Your task to perform on an android device: open the mobile data screen to see how much data has been used Image 0: 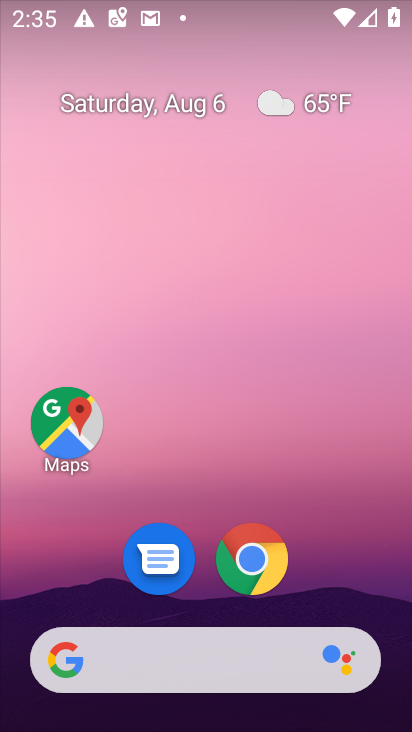
Step 0: drag from (195, 421) to (185, 43)
Your task to perform on an android device: open the mobile data screen to see how much data has been used Image 1: 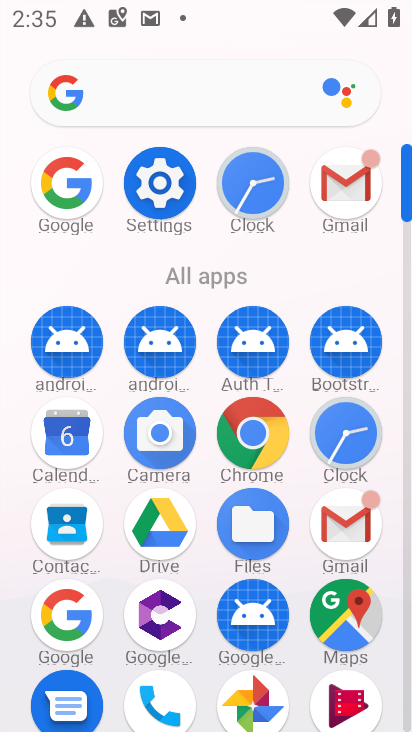
Step 1: click (168, 178)
Your task to perform on an android device: open the mobile data screen to see how much data has been used Image 2: 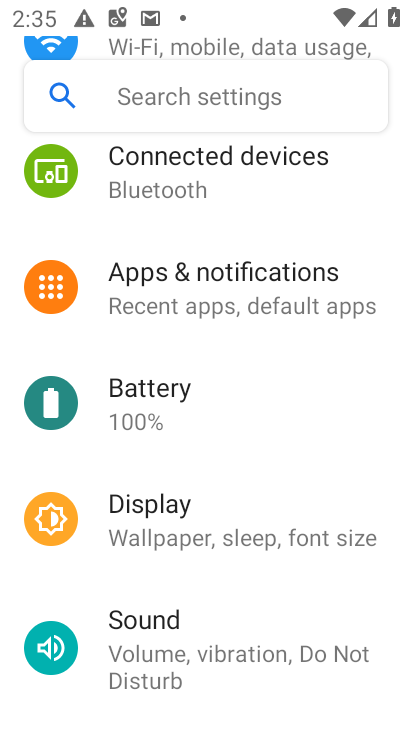
Step 2: drag from (168, 178) to (248, 438)
Your task to perform on an android device: open the mobile data screen to see how much data has been used Image 3: 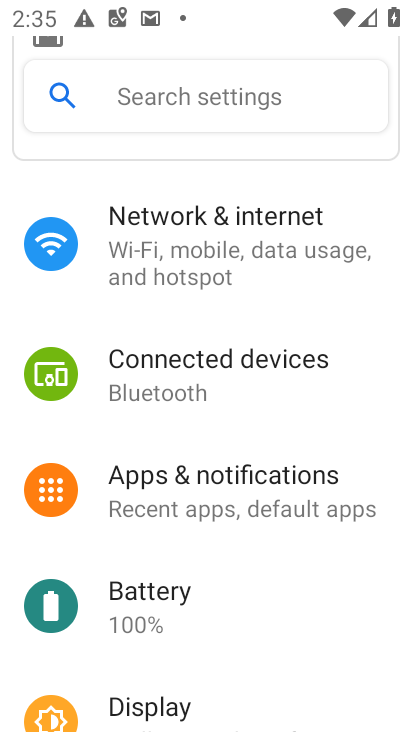
Step 3: click (201, 258)
Your task to perform on an android device: open the mobile data screen to see how much data has been used Image 4: 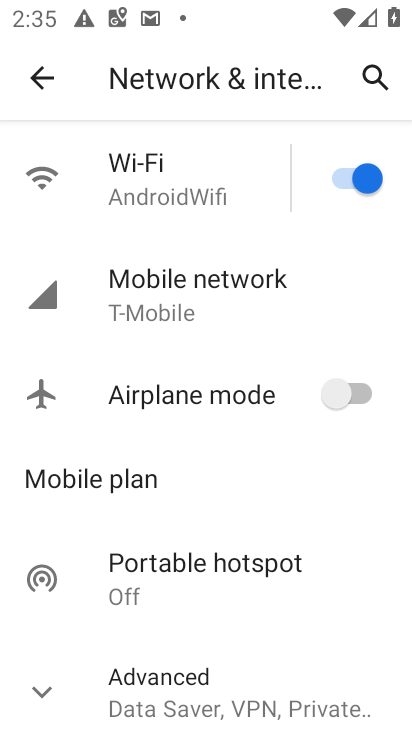
Step 4: click (219, 276)
Your task to perform on an android device: open the mobile data screen to see how much data has been used Image 5: 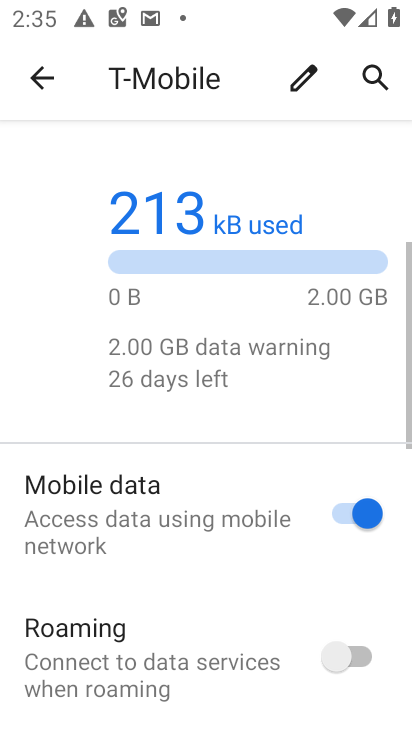
Step 5: task complete